Your task to perform on an android device: Open display settings Image 0: 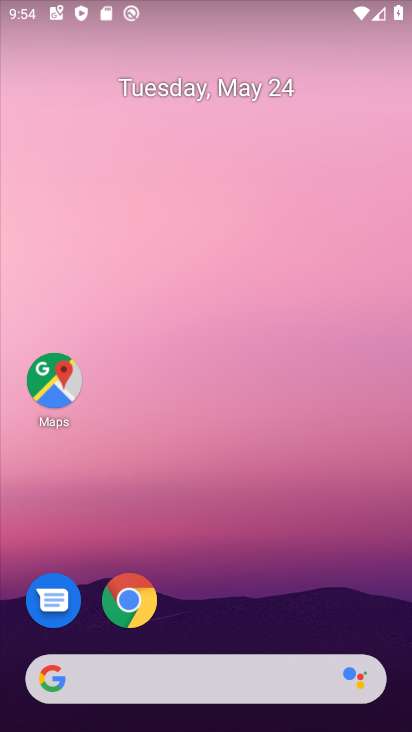
Step 0: click (132, 620)
Your task to perform on an android device: Open display settings Image 1: 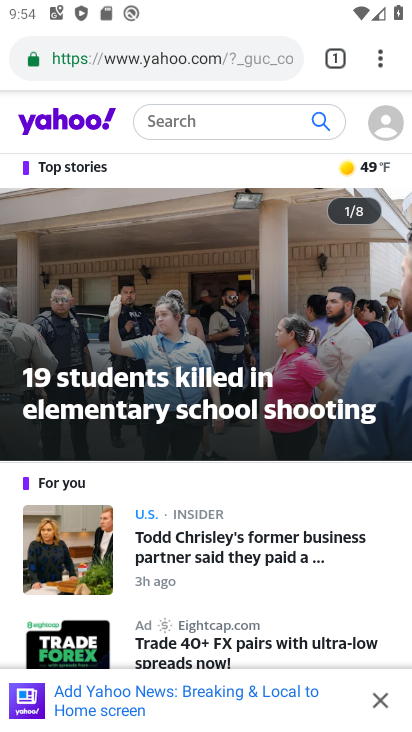
Step 1: press home button
Your task to perform on an android device: Open display settings Image 2: 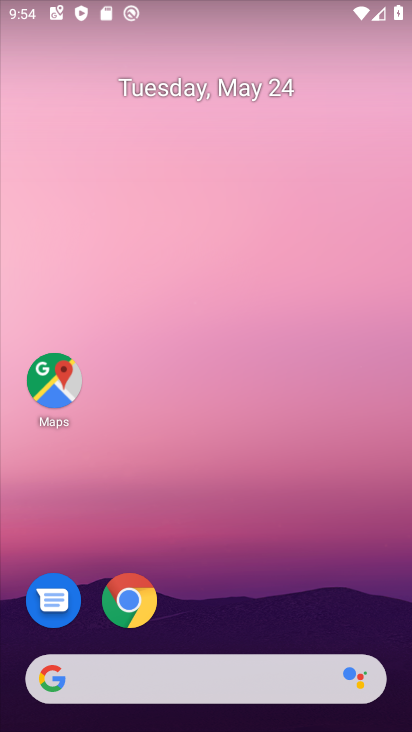
Step 2: drag from (150, 533) to (223, 8)
Your task to perform on an android device: Open display settings Image 3: 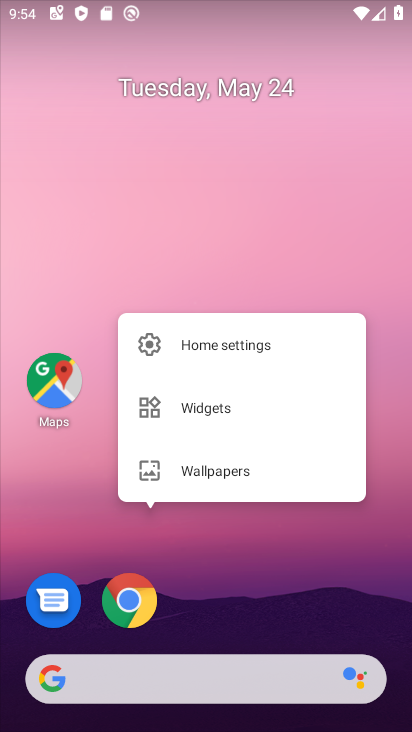
Step 3: click (223, 557)
Your task to perform on an android device: Open display settings Image 4: 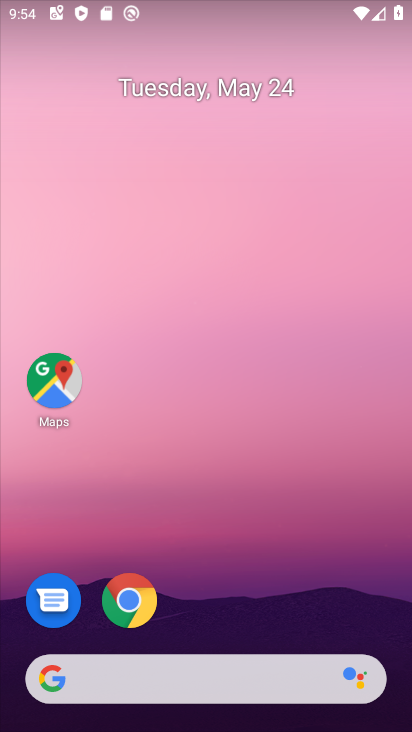
Step 4: drag from (204, 572) to (194, 200)
Your task to perform on an android device: Open display settings Image 5: 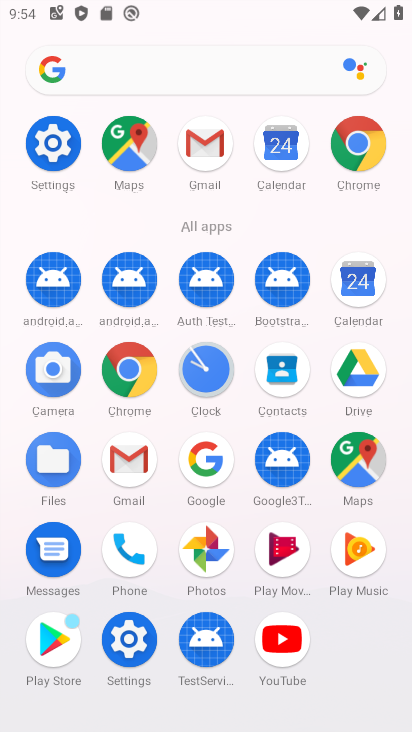
Step 5: click (44, 155)
Your task to perform on an android device: Open display settings Image 6: 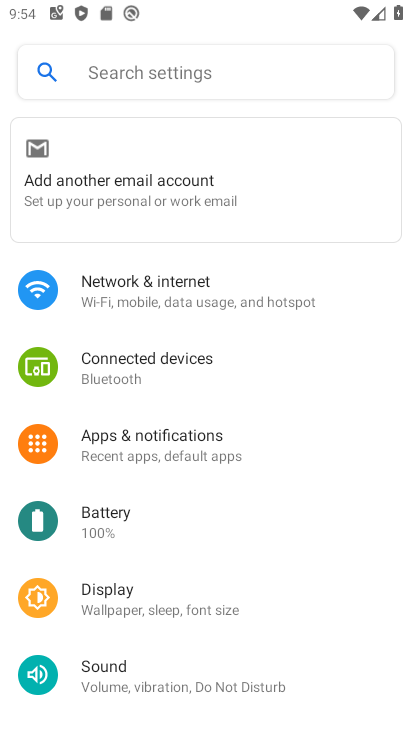
Step 6: click (93, 610)
Your task to perform on an android device: Open display settings Image 7: 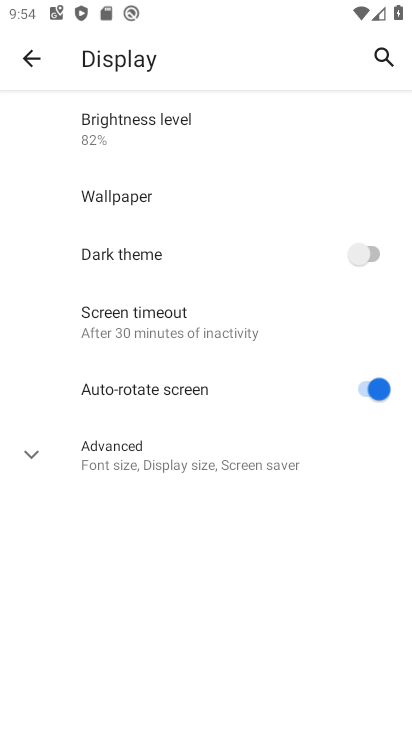
Step 7: task complete